Your task to perform on an android device: Open display settings Image 0: 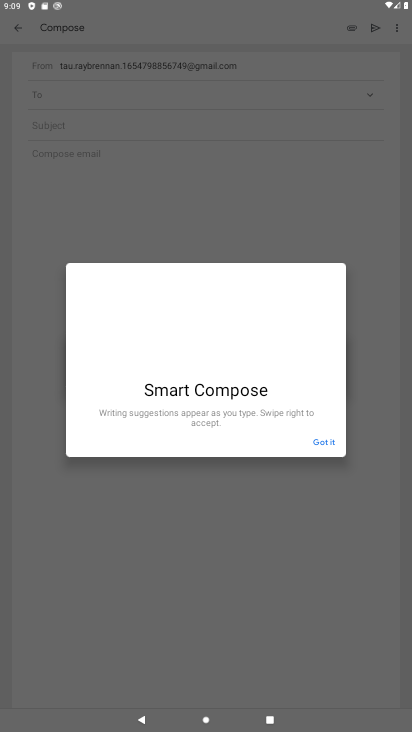
Step 0: press home button
Your task to perform on an android device: Open display settings Image 1: 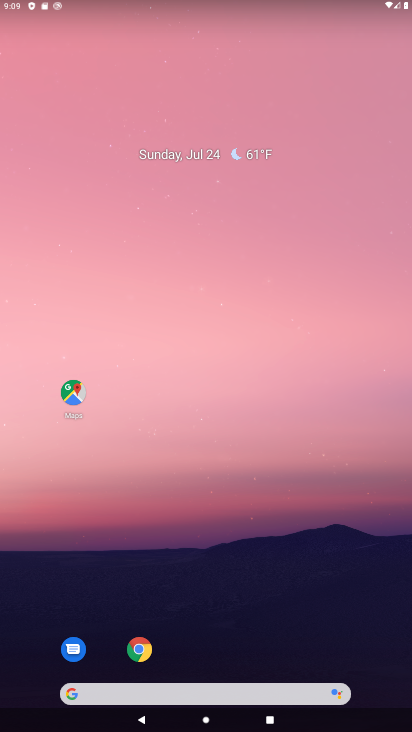
Step 1: drag from (269, 556) to (178, 115)
Your task to perform on an android device: Open display settings Image 2: 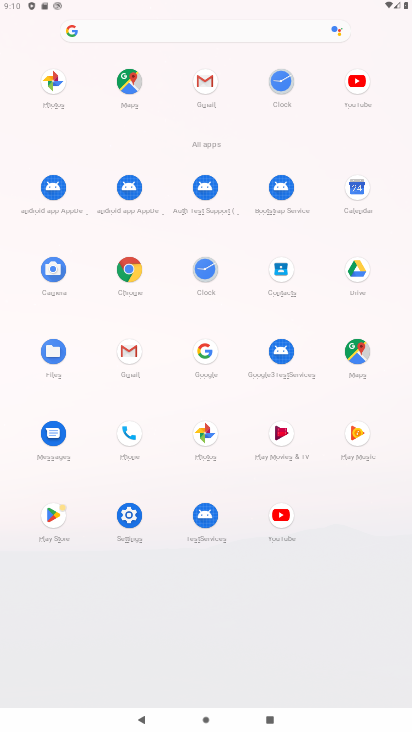
Step 2: click (133, 519)
Your task to perform on an android device: Open display settings Image 3: 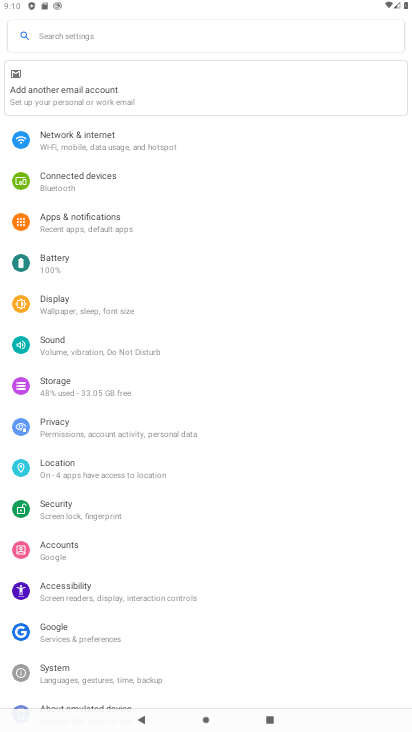
Step 3: click (53, 303)
Your task to perform on an android device: Open display settings Image 4: 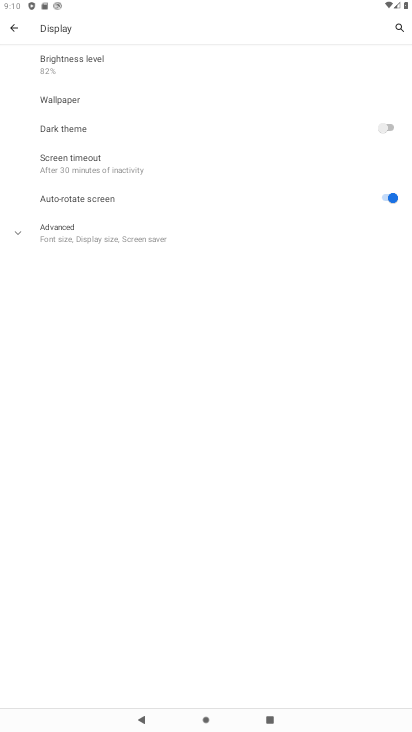
Step 4: task complete